Your task to perform on an android device: open app "Etsy: Buy & Sell Unique Items" (install if not already installed), go to login, and select forgot password Image 0: 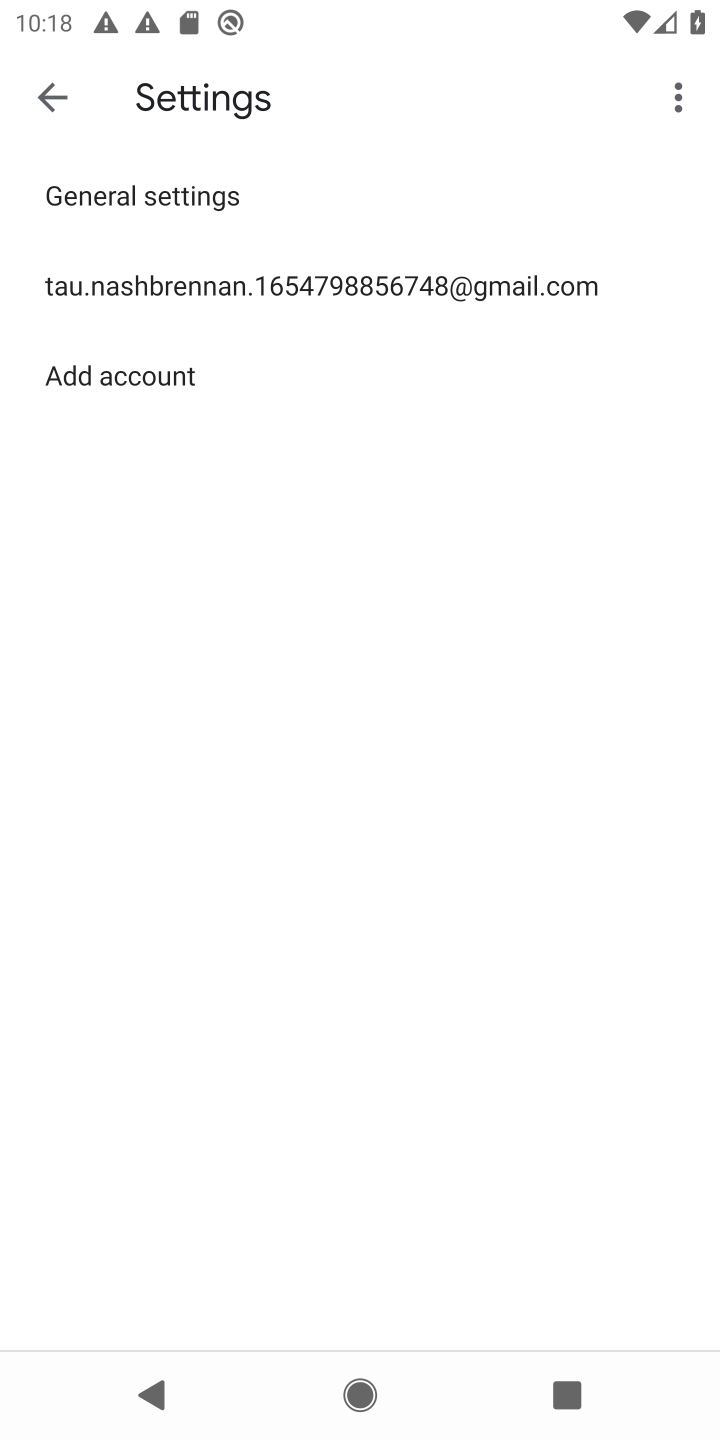
Step 0: press home button
Your task to perform on an android device: open app "Etsy: Buy & Sell Unique Items" (install if not already installed), go to login, and select forgot password Image 1: 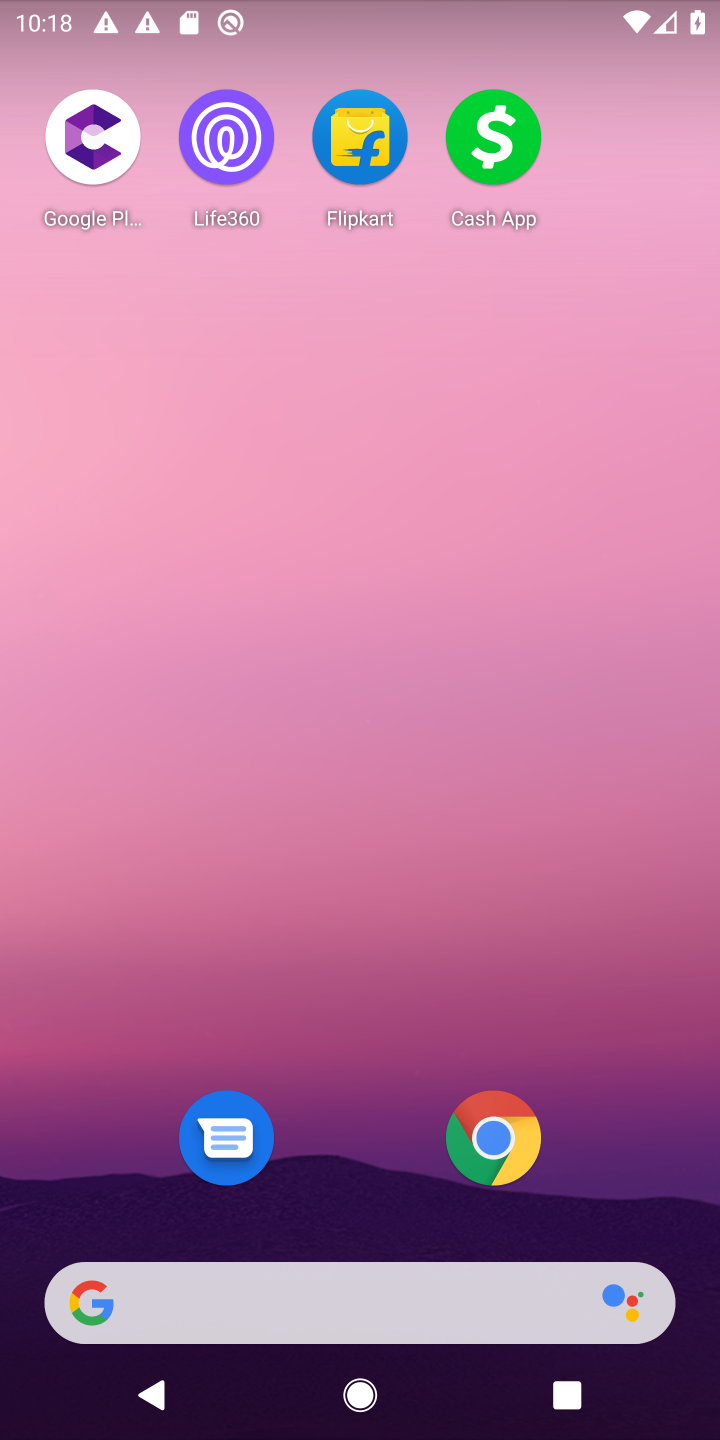
Step 1: press home button
Your task to perform on an android device: open app "Etsy: Buy & Sell Unique Items" (install if not already installed), go to login, and select forgot password Image 2: 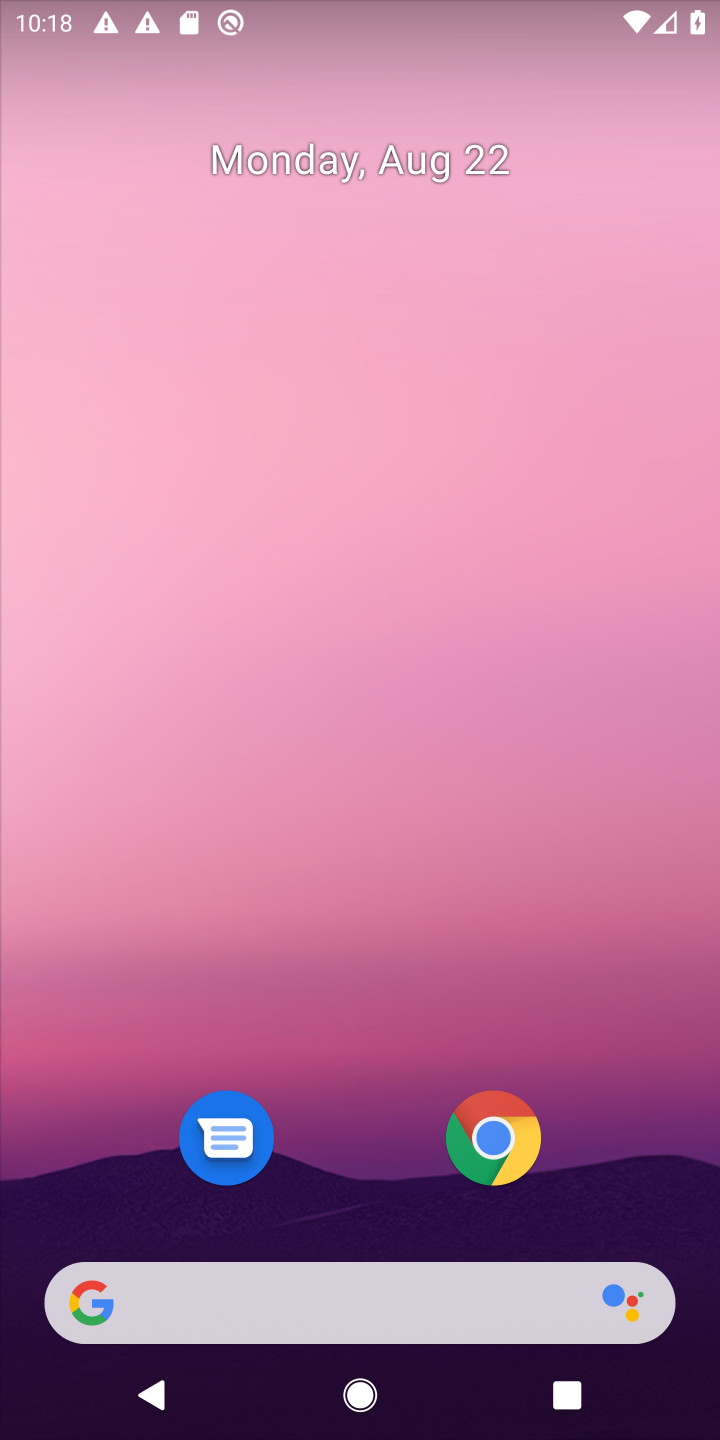
Step 2: drag from (651, 1071) to (582, 98)
Your task to perform on an android device: open app "Etsy: Buy & Sell Unique Items" (install if not already installed), go to login, and select forgot password Image 3: 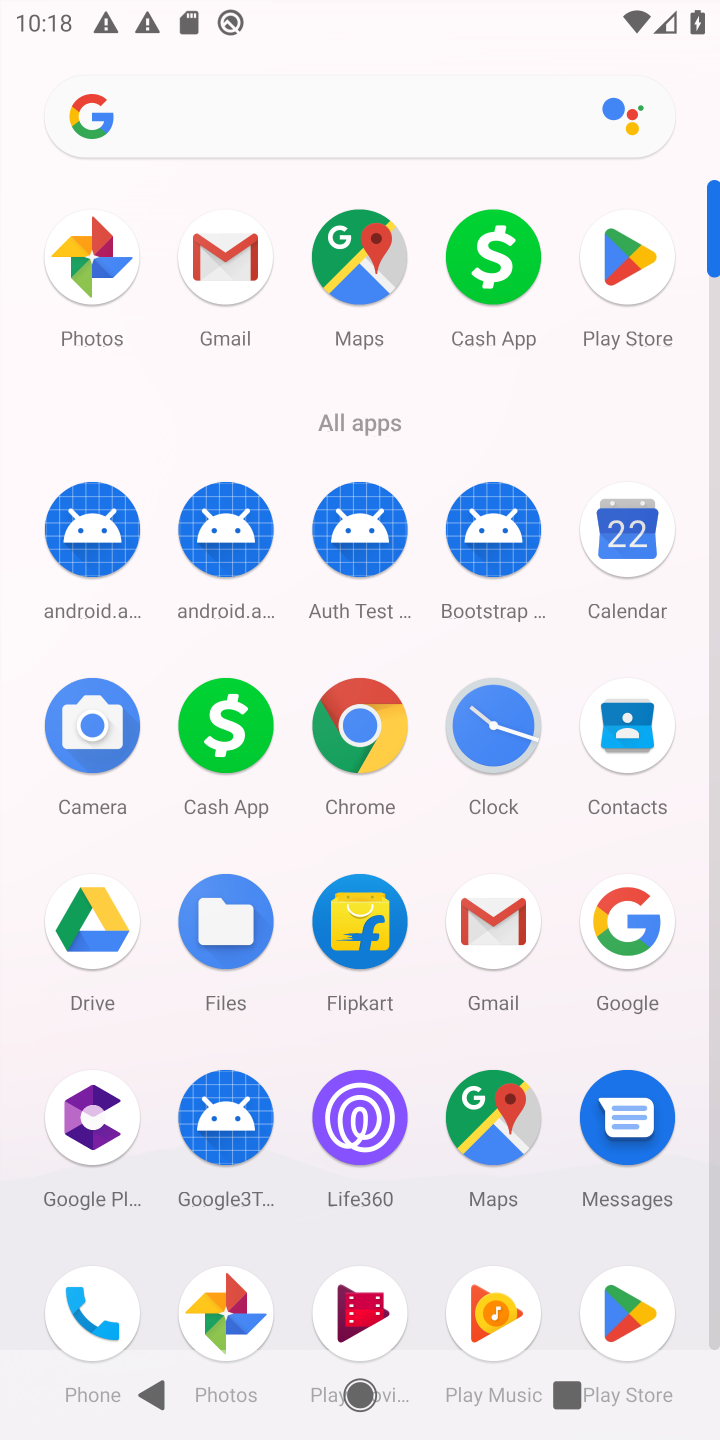
Step 3: click (622, 254)
Your task to perform on an android device: open app "Etsy: Buy & Sell Unique Items" (install if not already installed), go to login, and select forgot password Image 4: 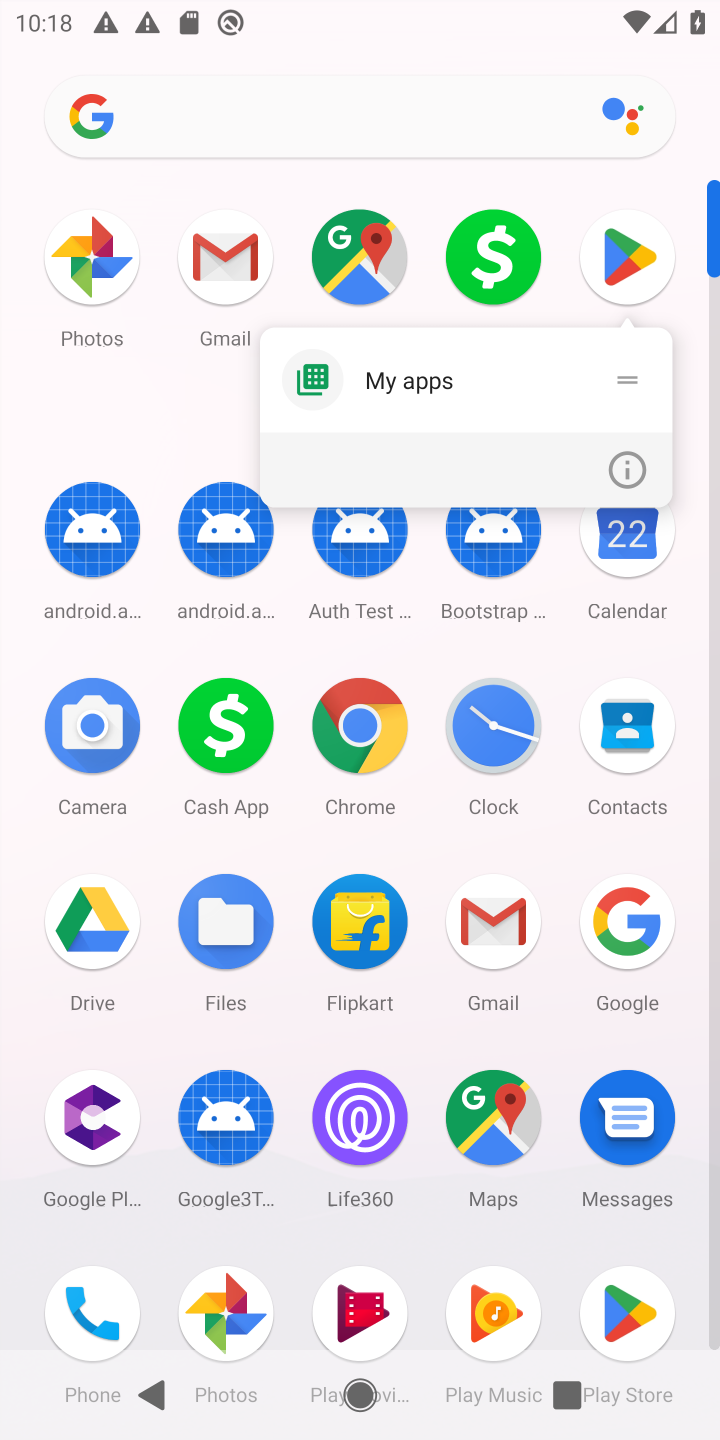
Step 4: click (622, 231)
Your task to perform on an android device: open app "Etsy: Buy & Sell Unique Items" (install if not already installed), go to login, and select forgot password Image 5: 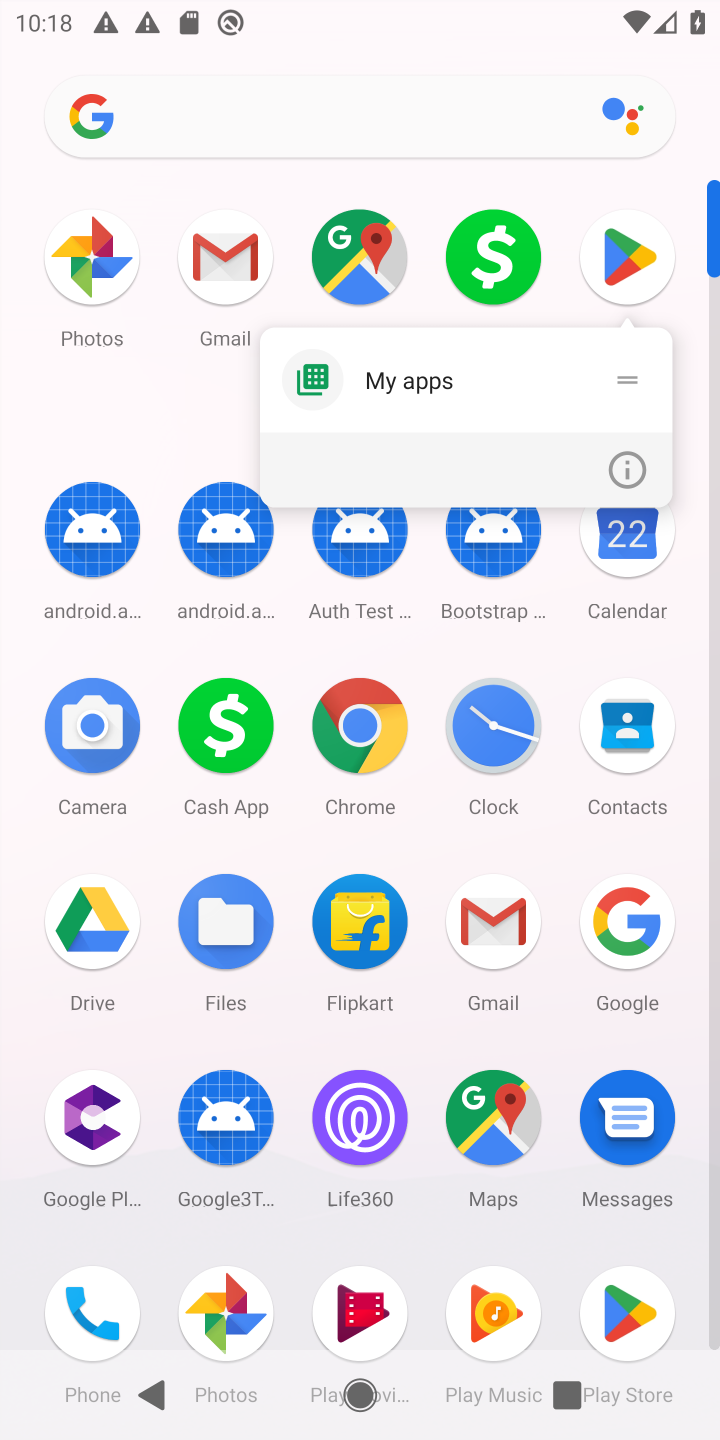
Step 5: click (620, 250)
Your task to perform on an android device: open app "Etsy: Buy & Sell Unique Items" (install if not already installed), go to login, and select forgot password Image 6: 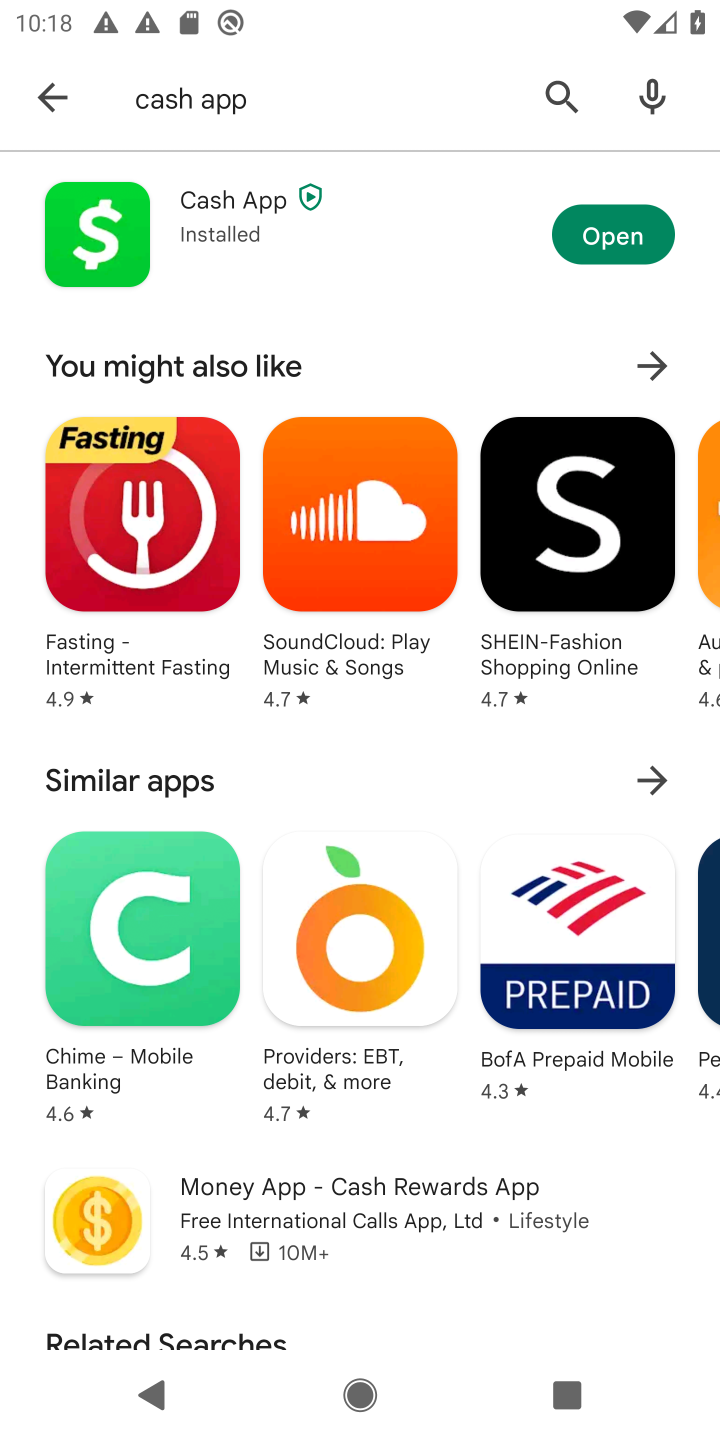
Step 6: press back button
Your task to perform on an android device: open app "Etsy: Buy & Sell Unique Items" (install if not already installed), go to login, and select forgot password Image 7: 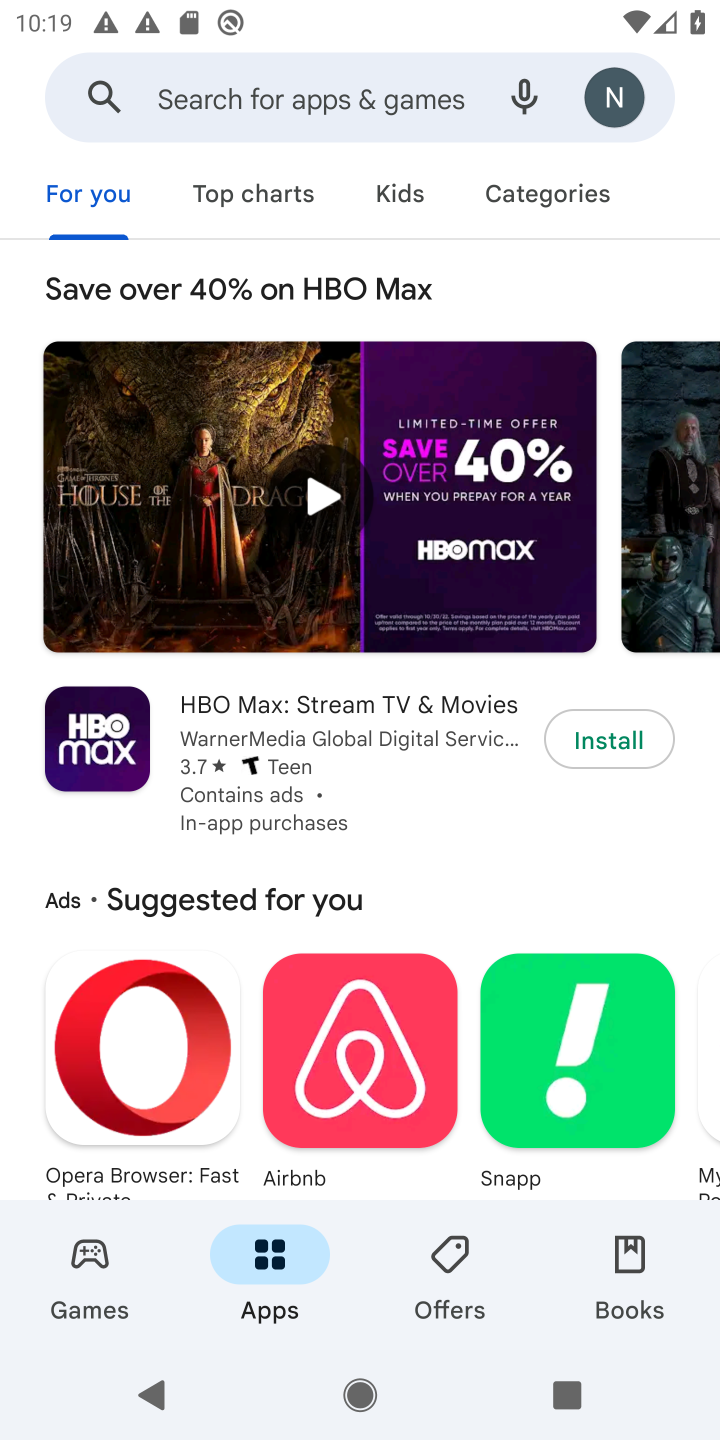
Step 7: click (277, 97)
Your task to perform on an android device: open app "Etsy: Buy & Sell Unique Items" (install if not already installed), go to login, and select forgot password Image 8: 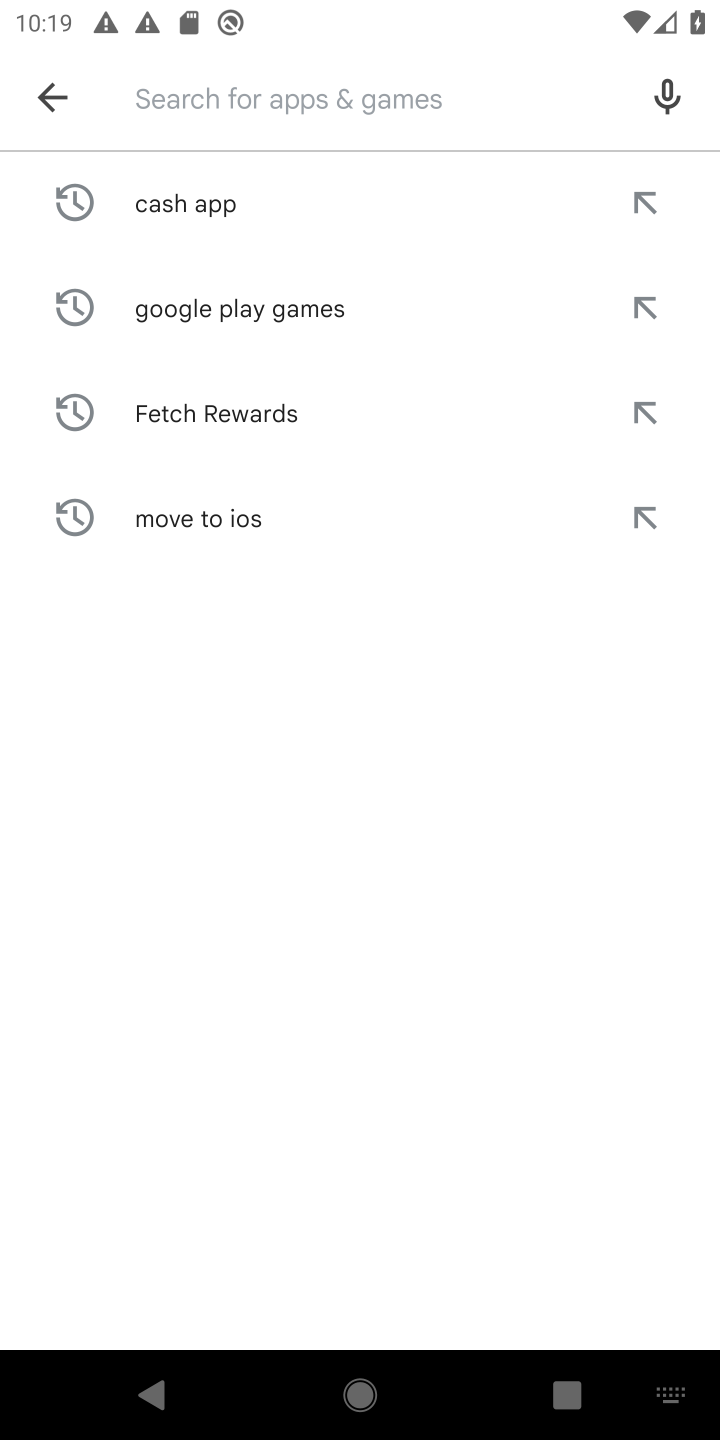
Step 8: press enter
Your task to perform on an android device: open app "Etsy: Buy & Sell Unique Items" (install if not already installed), go to login, and select forgot password Image 9: 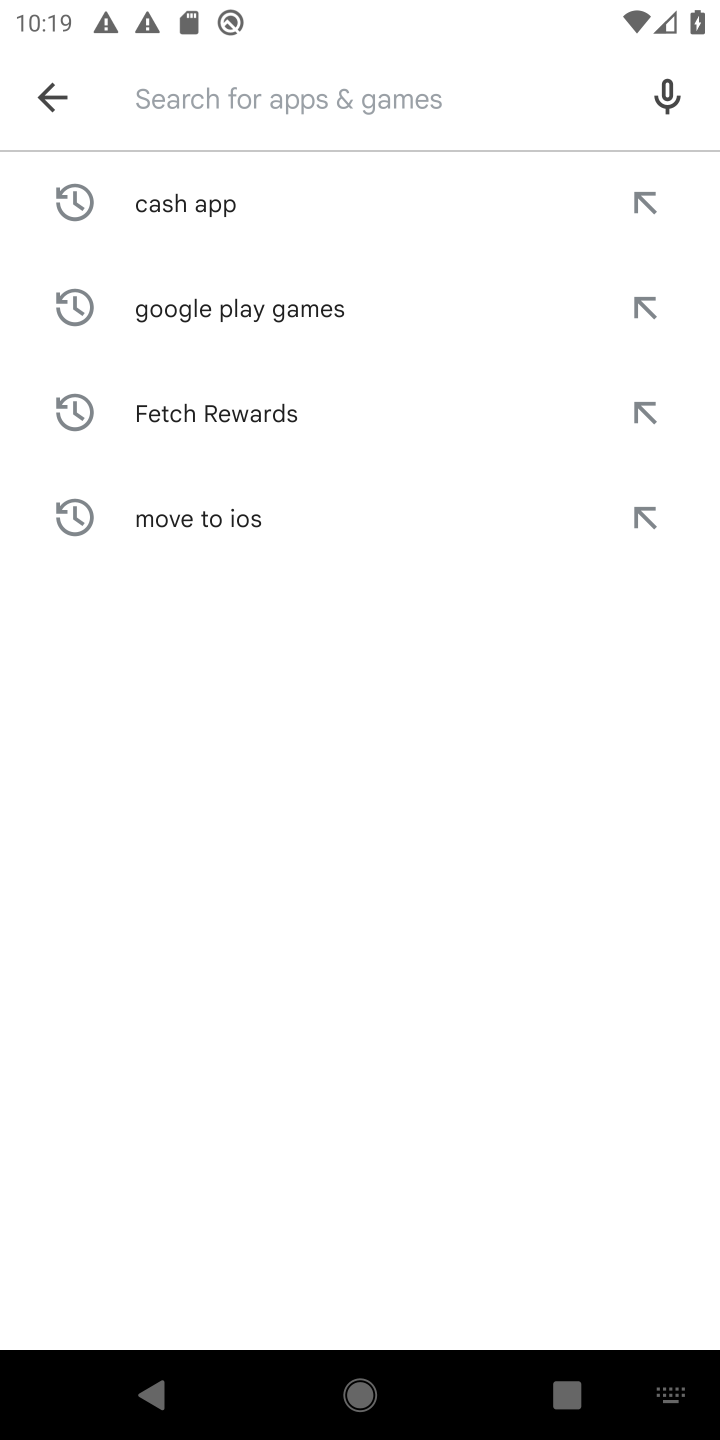
Step 9: type "Etsy: Buy & Sell Unique Items"
Your task to perform on an android device: open app "Etsy: Buy & Sell Unique Items" (install if not already installed), go to login, and select forgot password Image 10: 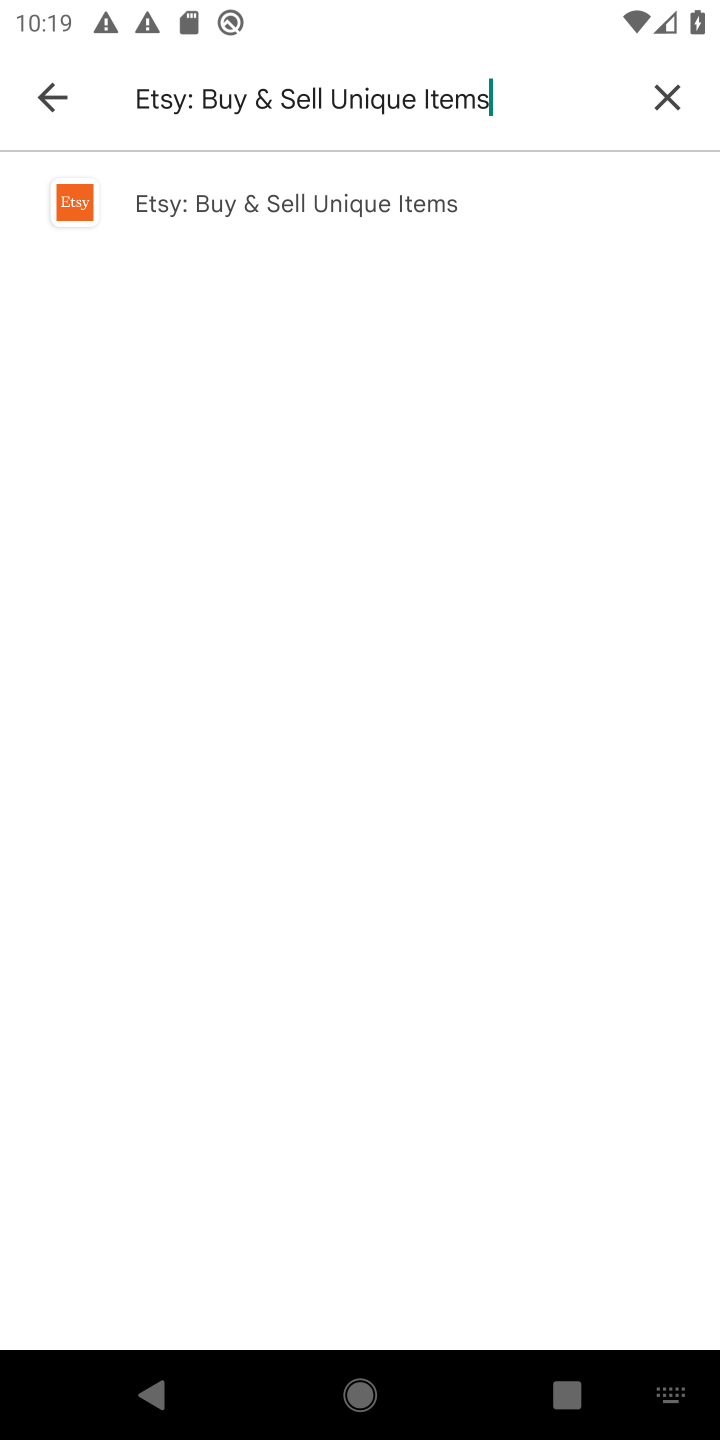
Step 10: click (383, 189)
Your task to perform on an android device: open app "Etsy: Buy & Sell Unique Items" (install if not already installed), go to login, and select forgot password Image 11: 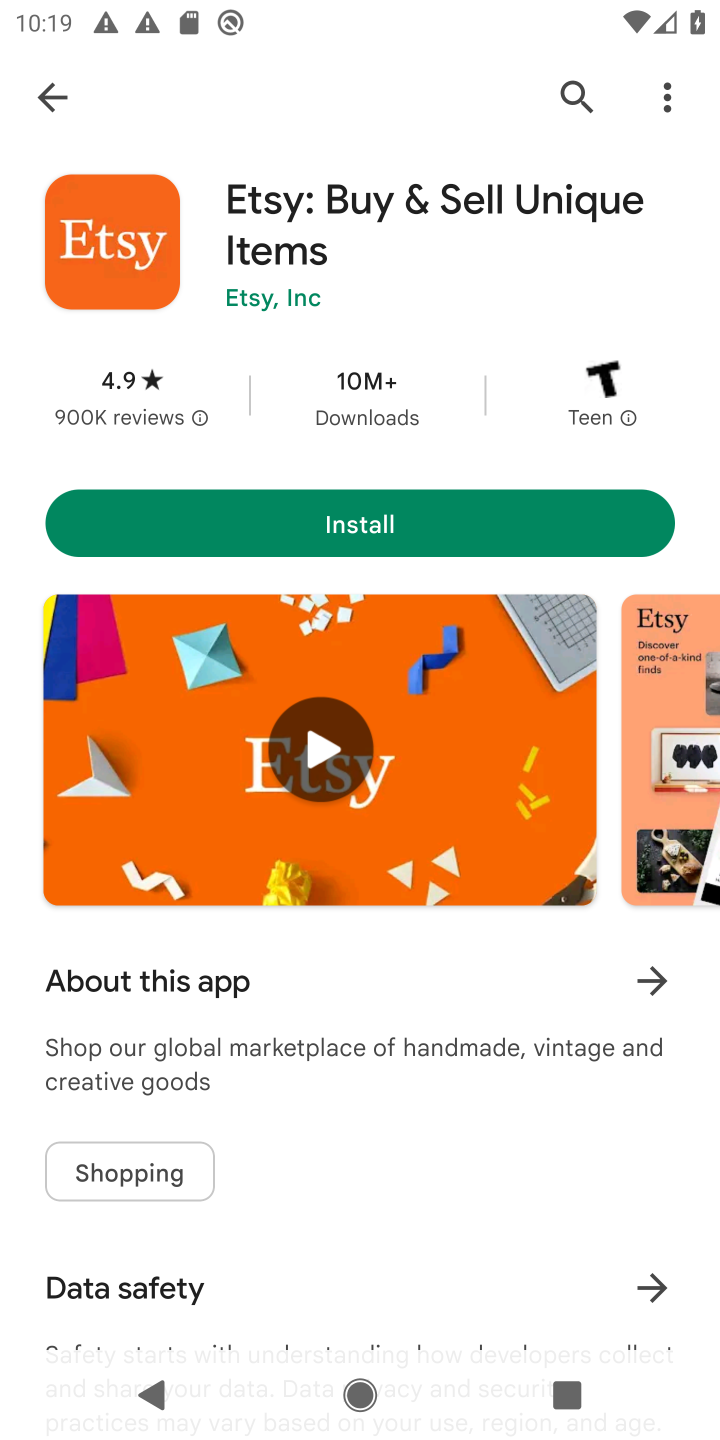
Step 11: click (399, 526)
Your task to perform on an android device: open app "Etsy: Buy & Sell Unique Items" (install if not already installed), go to login, and select forgot password Image 12: 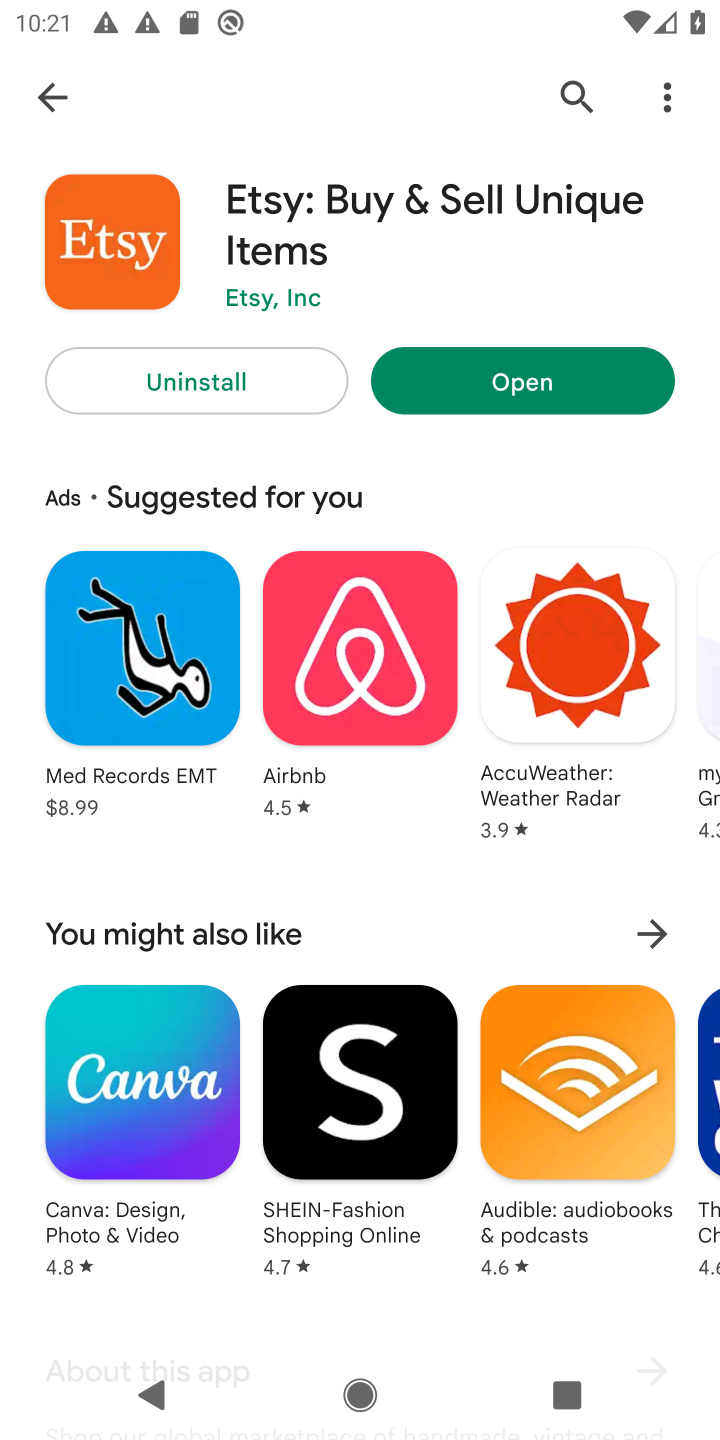
Step 12: click (610, 349)
Your task to perform on an android device: open app "Etsy: Buy & Sell Unique Items" (install if not already installed), go to login, and select forgot password Image 13: 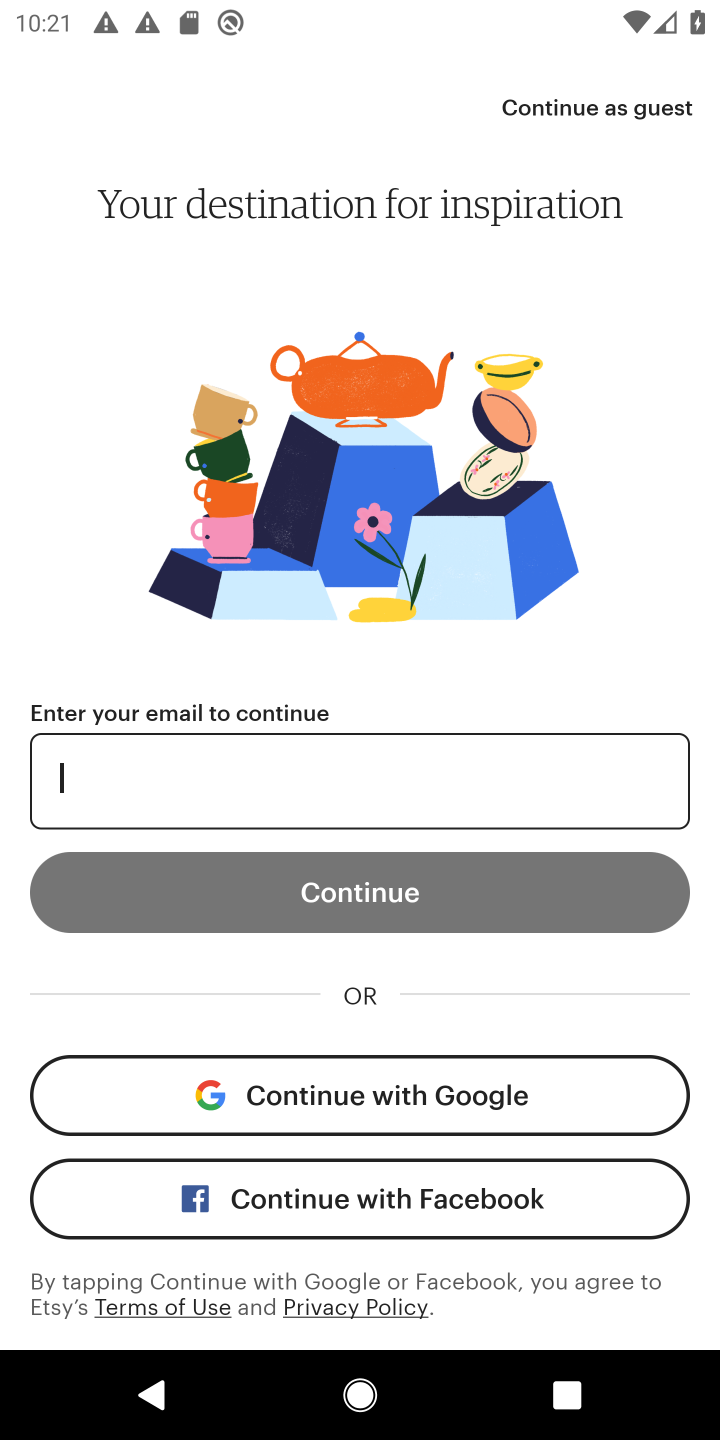
Step 13: task complete